Your task to perform on an android device: Open Yahoo.com Image 0: 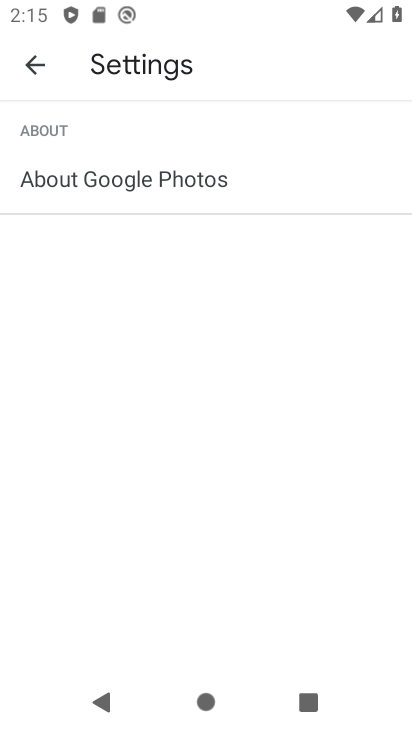
Step 0: press home button
Your task to perform on an android device: Open Yahoo.com Image 1: 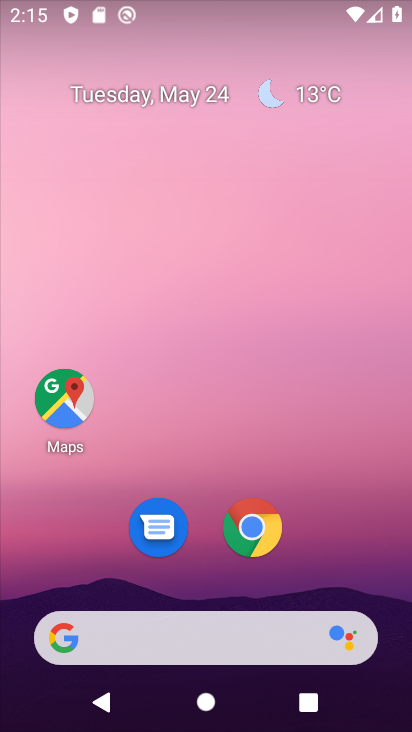
Step 1: click (256, 529)
Your task to perform on an android device: Open Yahoo.com Image 2: 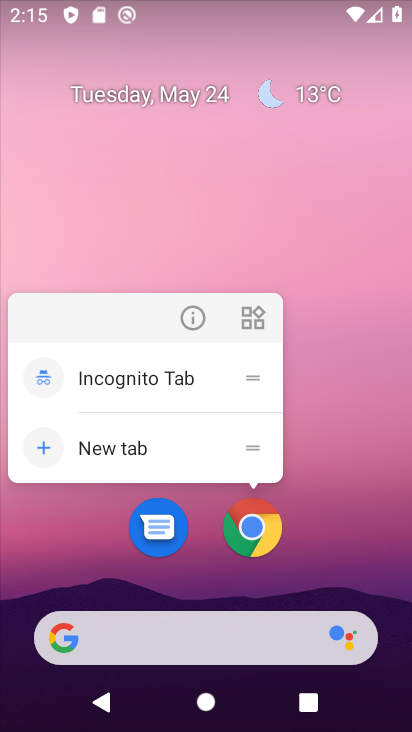
Step 2: click (244, 522)
Your task to perform on an android device: Open Yahoo.com Image 3: 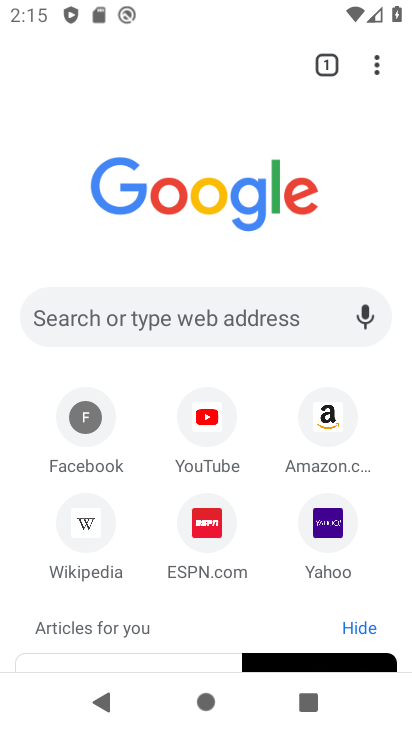
Step 3: click (335, 534)
Your task to perform on an android device: Open Yahoo.com Image 4: 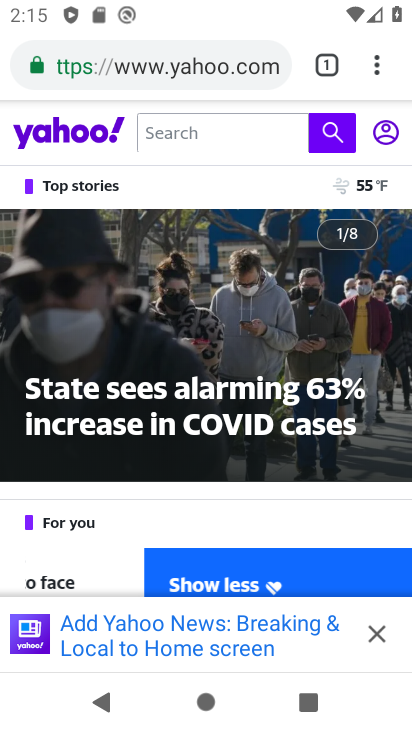
Step 4: task complete